Your task to perform on an android device: Do I have any events this weekend? Image 0: 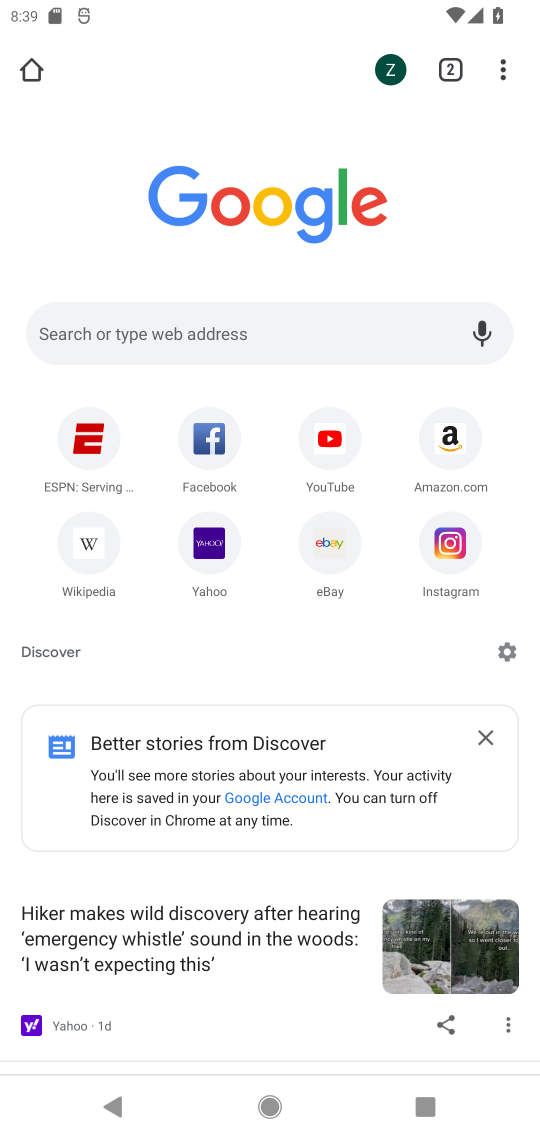
Step 0: press home button
Your task to perform on an android device: Do I have any events this weekend? Image 1: 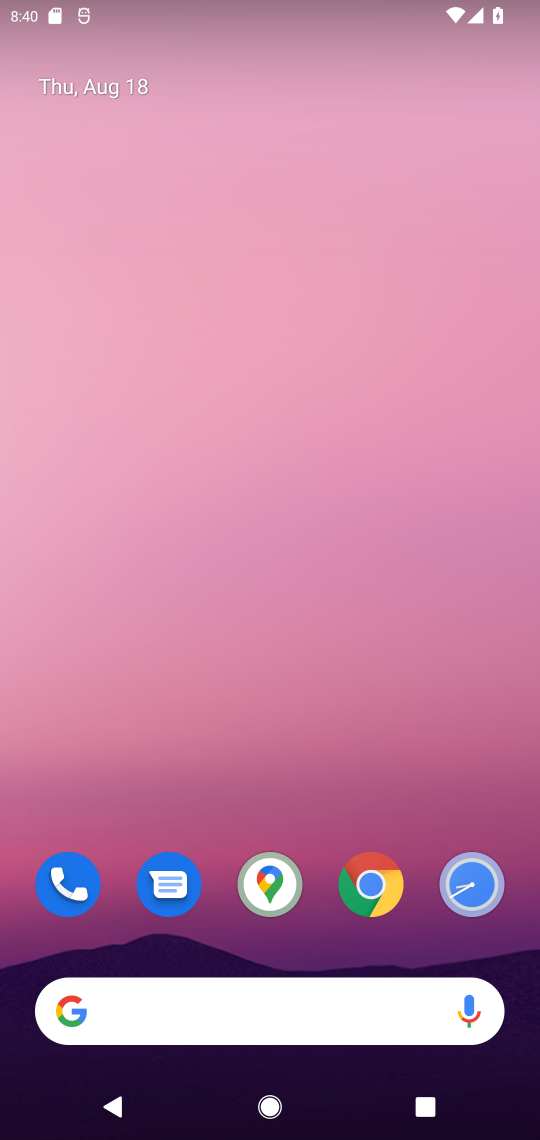
Step 1: click (110, 85)
Your task to perform on an android device: Do I have any events this weekend? Image 2: 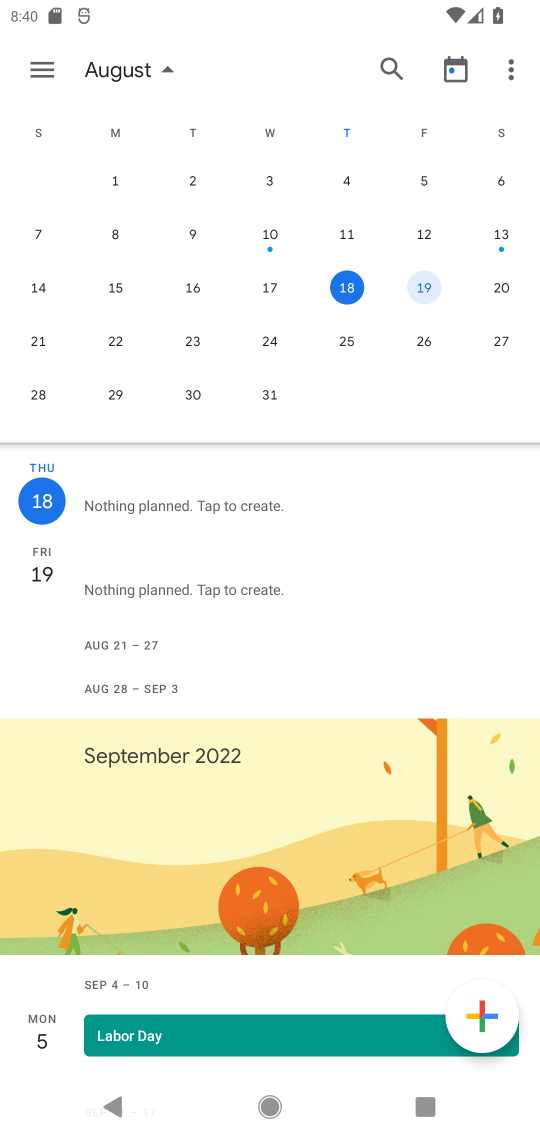
Step 2: click (511, 286)
Your task to perform on an android device: Do I have any events this weekend? Image 3: 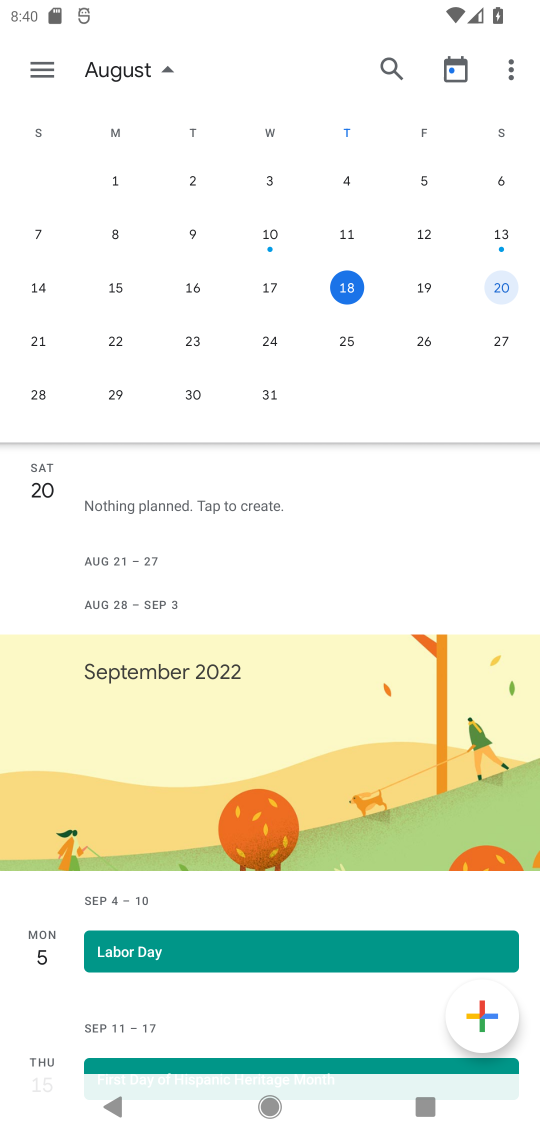
Step 3: task complete